Your task to perform on an android device: Go to sound settings Image 0: 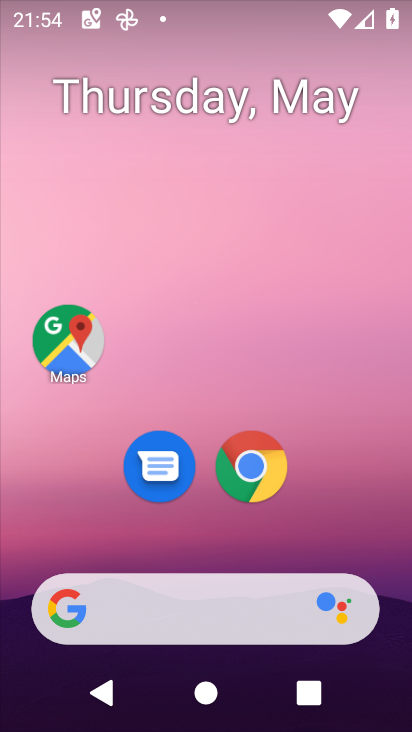
Step 0: drag from (352, 531) to (349, 169)
Your task to perform on an android device: Go to sound settings Image 1: 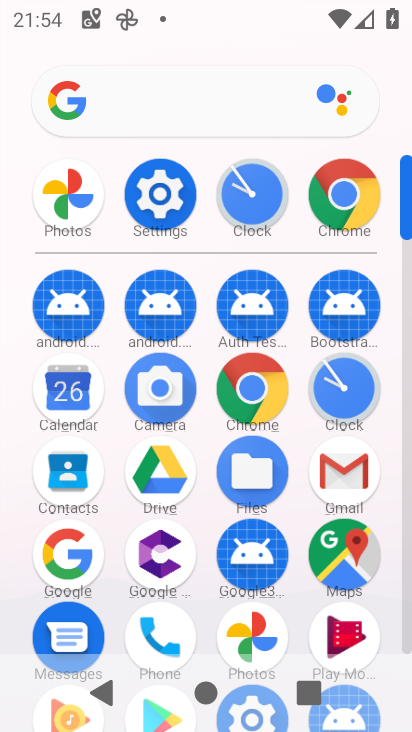
Step 1: click (155, 229)
Your task to perform on an android device: Go to sound settings Image 2: 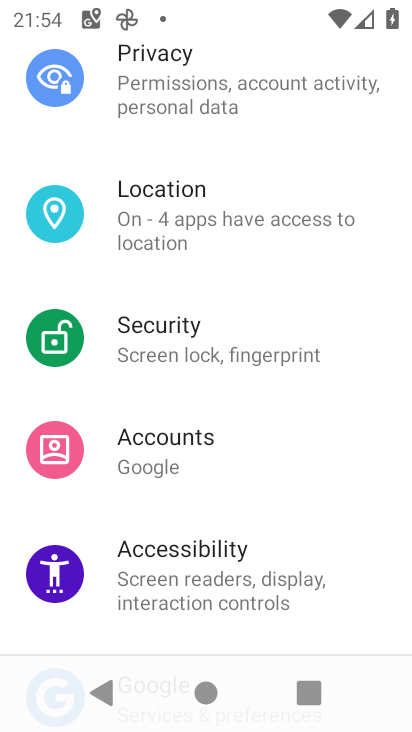
Step 2: drag from (210, 256) to (240, 482)
Your task to perform on an android device: Go to sound settings Image 3: 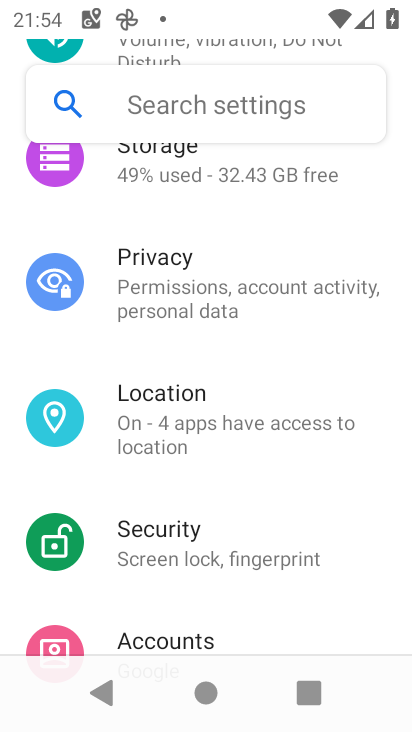
Step 3: drag from (210, 254) to (244, 463)
Your task to perform on an android device: Go to sound settings Image 4: 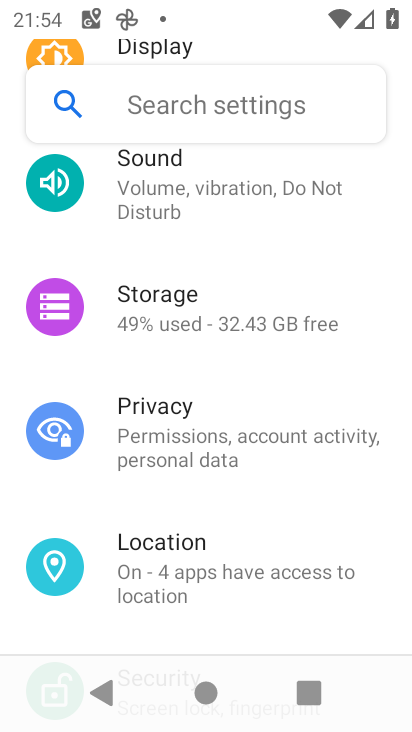
Step 4: click (232, 215)
Your task to perform on an android device: Go to sound settings Image 5: 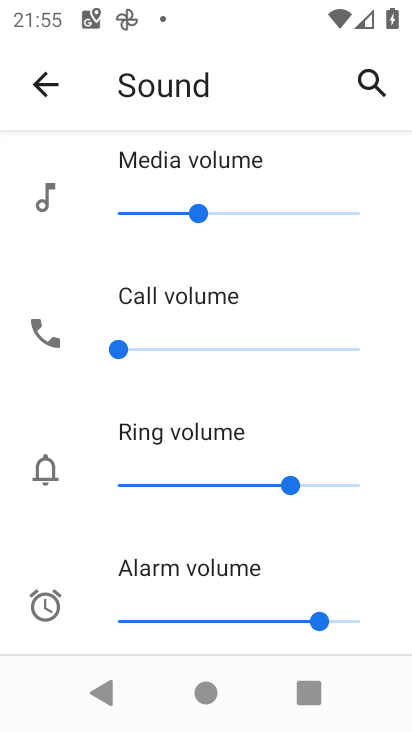
Step 5: task complete